Your task to perform on an android device: What's on my calendar today? Image 0: 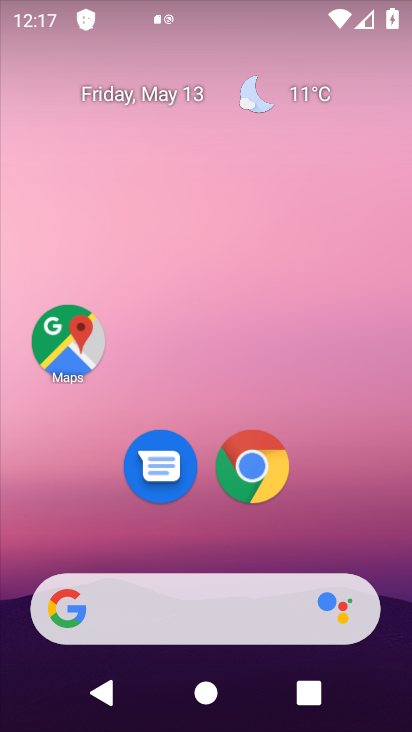
Step 0: drag from (351, 517) to (299, 141)
Your task to perform on an android device: What's on my calendar today? Image 1: 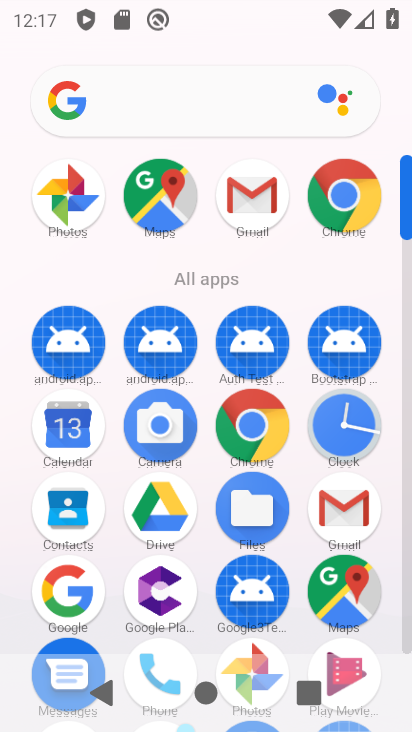
Step 1: click (70, 440)
Your task to perform on an android device: What's on my calendar today? Image 2: 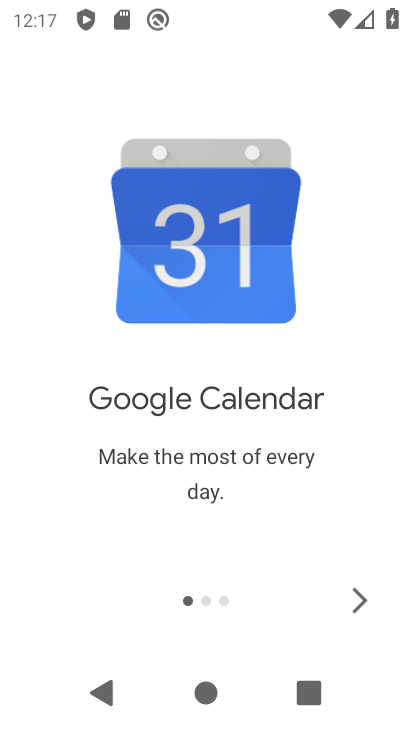
Step 2: click (347, 594)
Your task to perform on an android device: What's on my calendar today? Image 3: 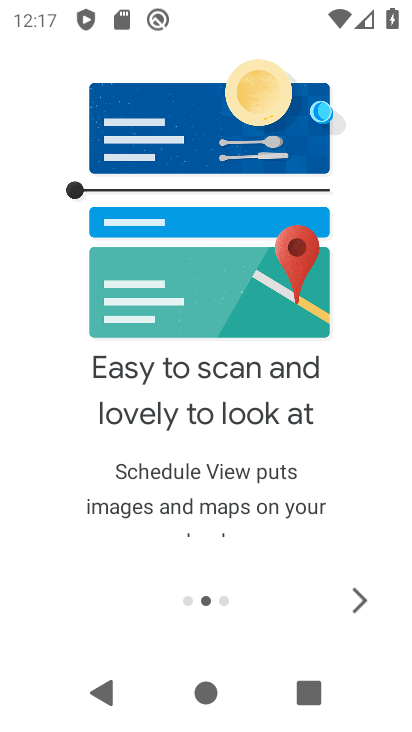
Step 3: click (347, 594)
Your task to perform on an android device: What's on my calendar today? Image 4: 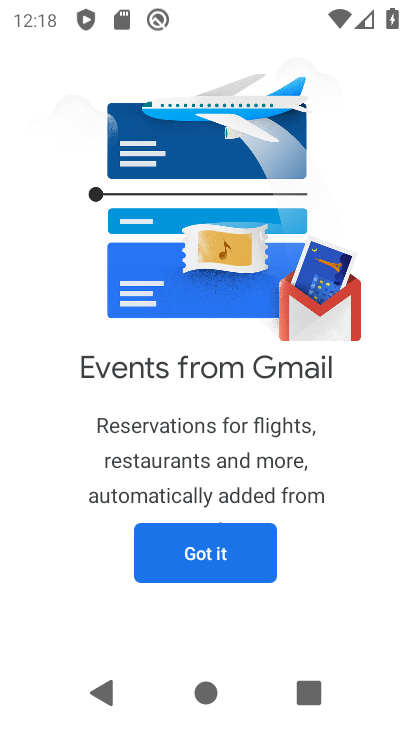
Step 4: click (220, 542)
Your task to perform on an android device: What's on my calendar today? Image 5: 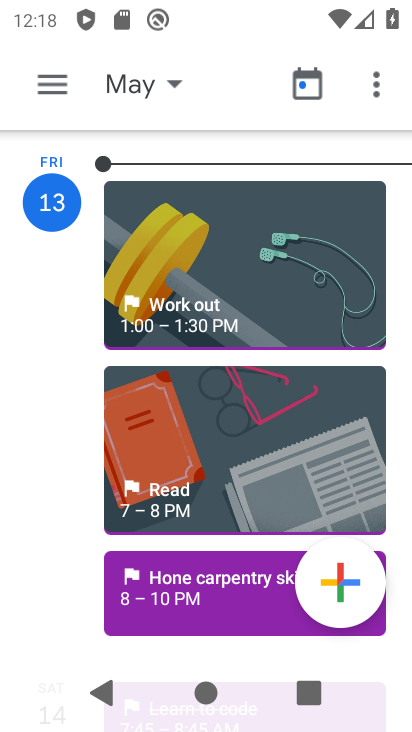
Step 5: task complete